Your task to perform on an android device: install app "Fetch Rewards" Image 0: 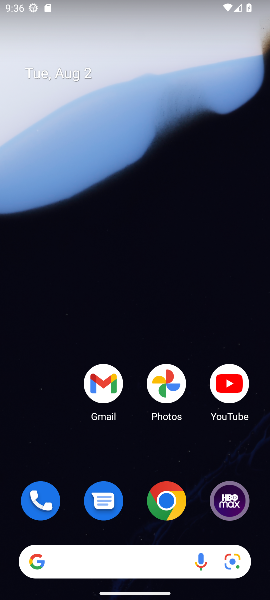
Step 0: drag from (134, 527) to (122, 122)
Your task to perform on an android device: install app "Fetch Rewards" Image 1: 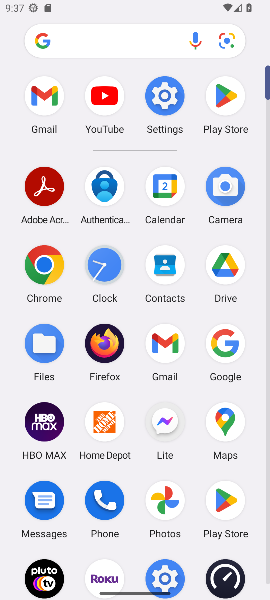
Step 1: click (230, 102)
Your task to perform on an android device: install app "Fetch Rewards" Image 2: 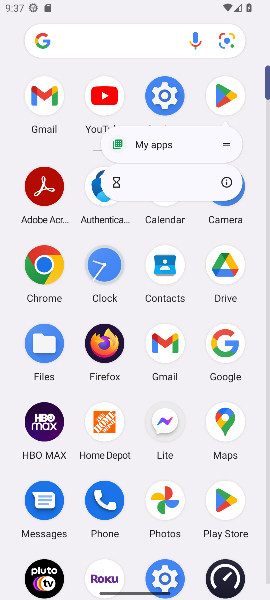
Step 2: click (228, 186)
Your task to perform on an android device: install app "Fetch Rewards" Image 3: 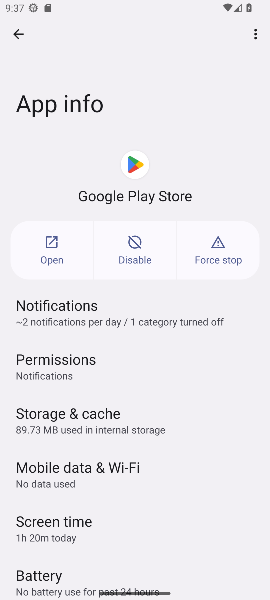
Step 3: click (49, 249)
Your task to perform on an android device: install app "Fetch Rewards" Image 4: 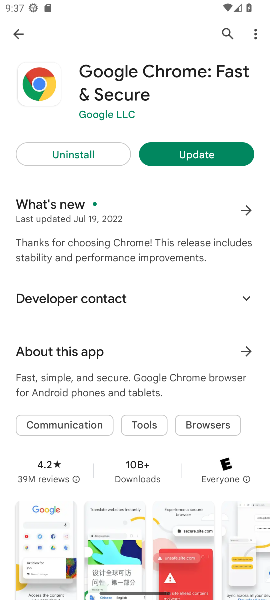
Step 4: click (226, 45)
Your task to perform on an android device: install app "Fetch Rewards" Image 5: 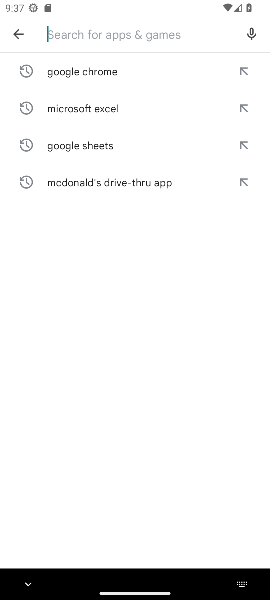
Step 5: type "Fetch Rewards"
Your task to perform on an android device: install app "Fetch Rewards" Image 6: 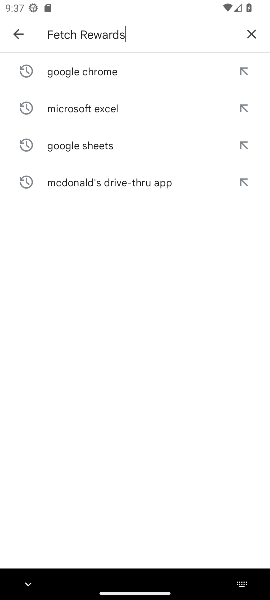
Step 6: type ""
Your task to perform on an android device: install app "Fetch Rewards" Image 7: 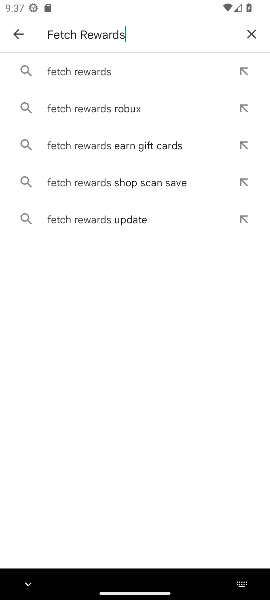
Step 7: click (80, 69)
Your task to perform on an android device: install app "Fetch Rewards" Image 8: 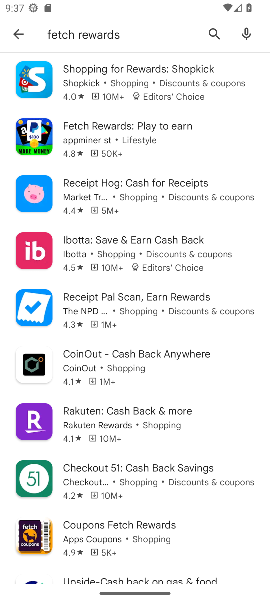
Step 8: click (92, 141)
Your task to perform on an android device: install app "Fetch Rewards" Image 9: 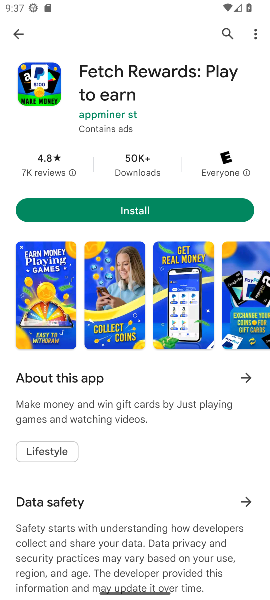
Step 9: drag from (147, 105) to (168, 418)
Your task to perform on an android device: install app "Fetch Rewards" Image 10: 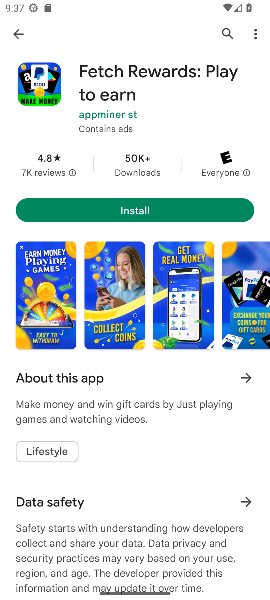
Step 10: drag from (149, 469) to (171, 187)
Your task to perform on an android device: install app "Fetch Rewards" Image 11: 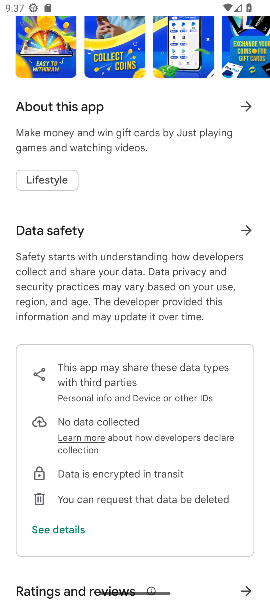
Step 11: drag from (177, 129) to (255, 594)
Your task to perform on an android device: install app "Fetch Rewards" Image 12: 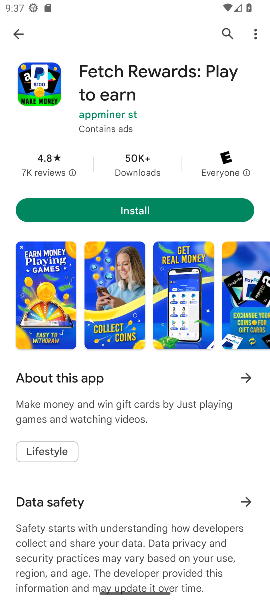
Step 12: click (123, 213)
Your task to perform on an android device: install app "Fetch Rewards" Image 13: 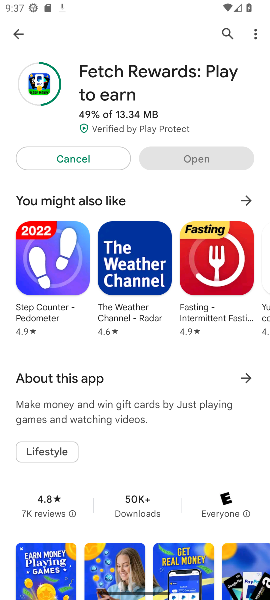
Step 13: task complete